Your task to perform on an android device: see sites visited before in the chrome app Image 0: 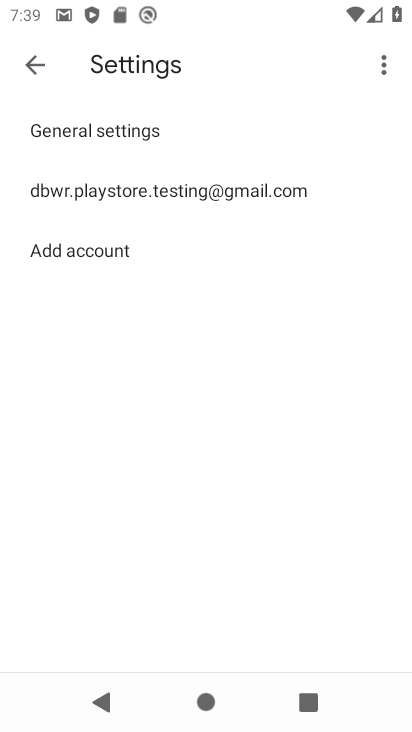
Step 0: press home button
Your task to perform on an android device: see sites visited before in the chrome app Image 1: 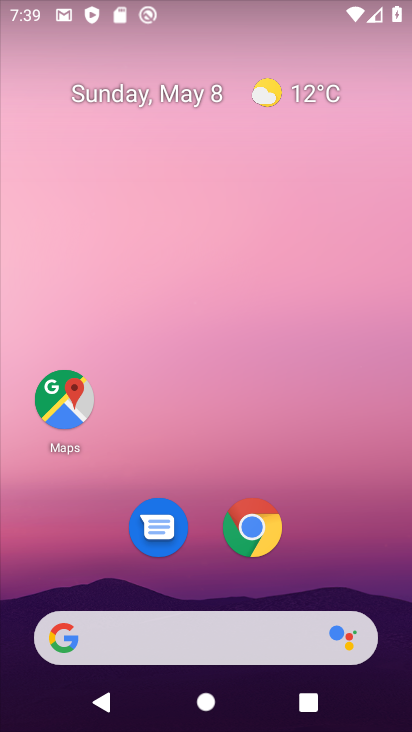
Step 1: click (250, 524)
Your task to perform on an android device: see sites visited before in the chrome app Image 2: 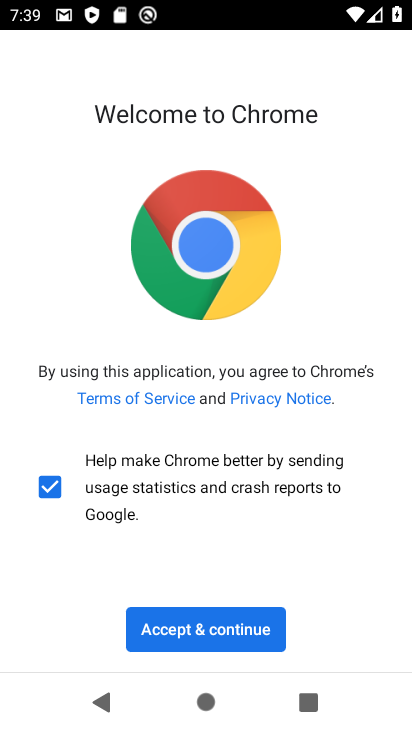
Step 2: click (272, 619)
Your task to perform on an android device: see sites visited before in the chrome app Image 3: 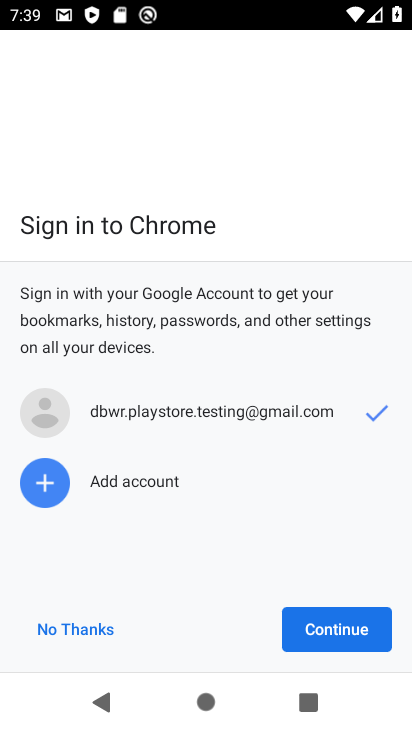
Step 3: click (366, 629)
Your task to perform on an android device: see sites visited before in the chrome app Image 4: 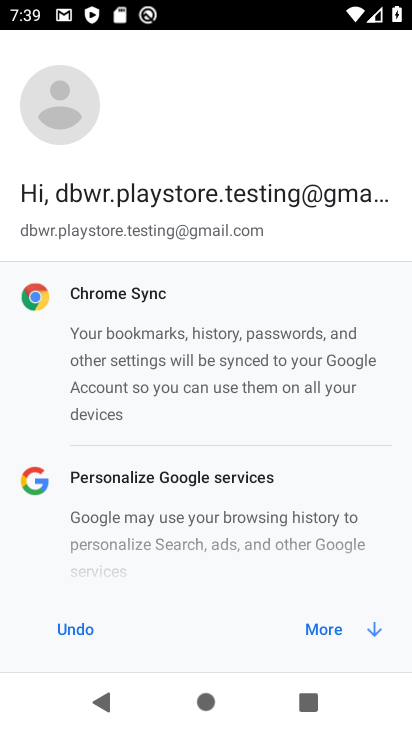
Step 4: click (365, 628)
Your task to perform on an android device: see sites visited before in the chrome app Image 5: 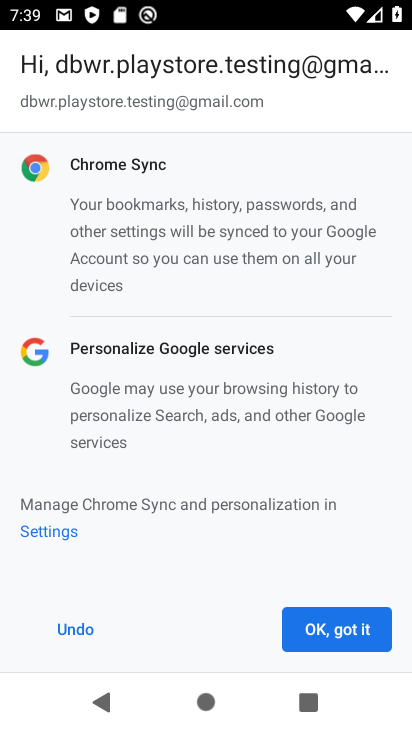
Step 5: click (365, 628)
Your task to perform on an android device: see sites visited before in the chrome app Image 6: 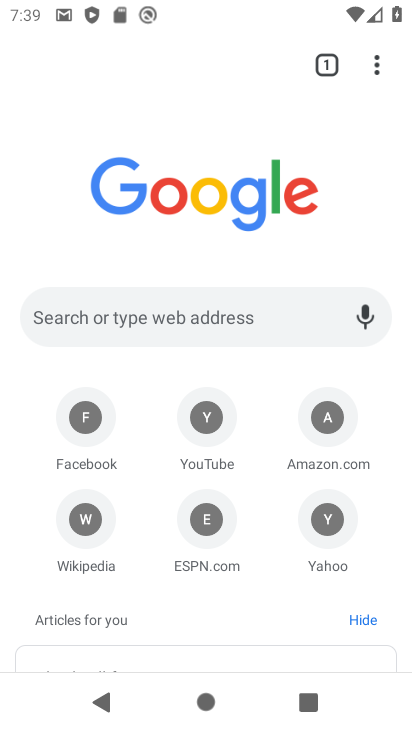
Step 6: task complete